Your task to perform on an android device: Find coffee shops on Maps Image 0: 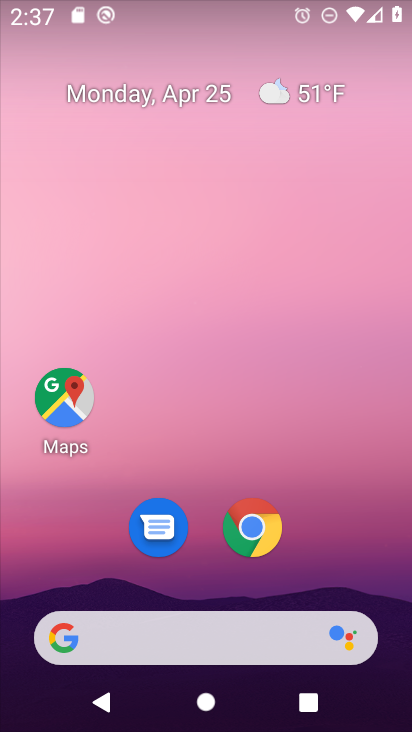
Step 0: drag from (294, 432) to (212, 36)
Your task to perform on an android device: Find coffee shops on Maps Image 1: 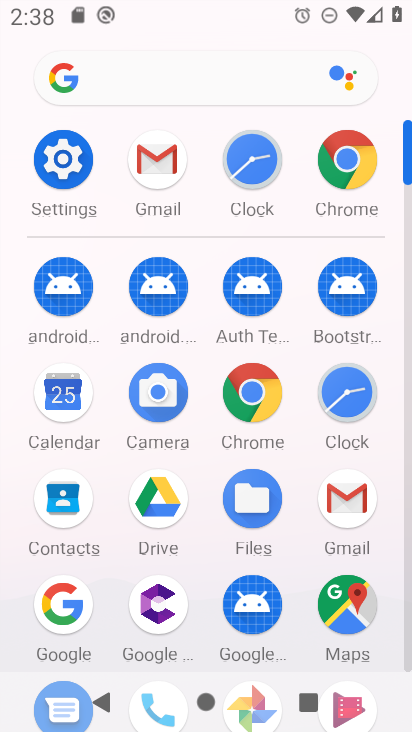
Step 1: drag from (20, 464) to (5, 146)
Your task to perform on an android device: Find coffee shops on Maps Image 2: 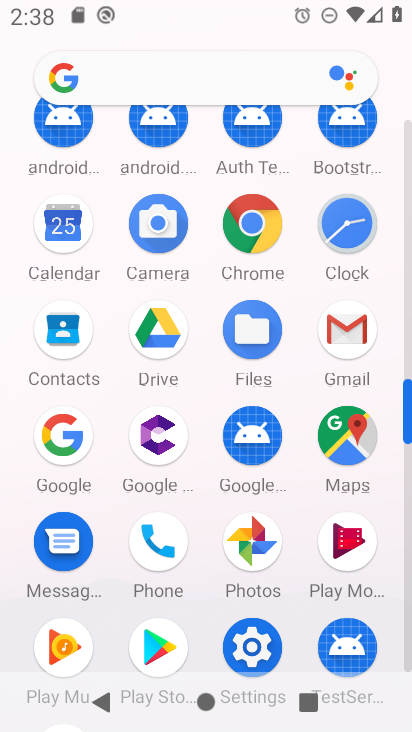
Step 2: click (346, 436)
Your task to perform on an android device: Find coffee shops on Maps Image 3: 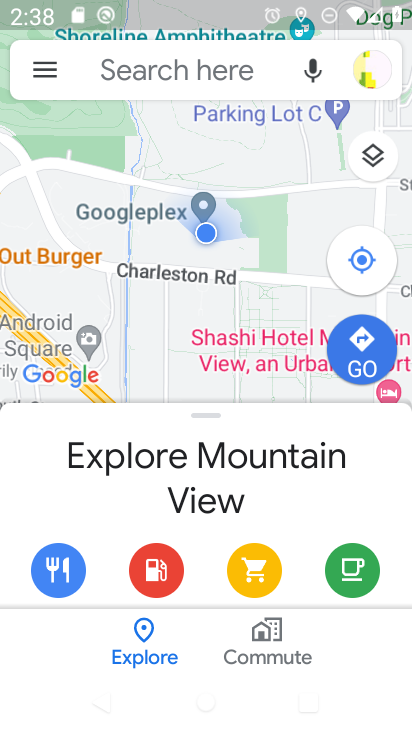
Step 3: click (261, 70)
Your task to perform on an android device: Find coffee shops on Maps Image 4: 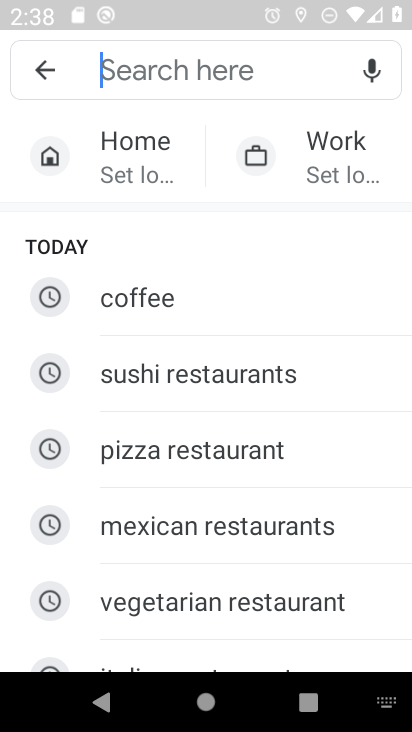
Step 4: type " coffee shops"
Your task to perform on an android device: Find coffee shops on Maps Image 5: 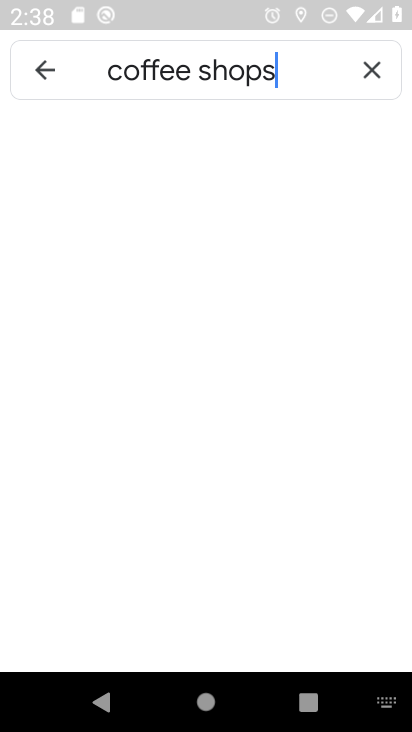
Step 5: type ""
Your task to perform on an android device: Find coffee shops on Maps Image 6: 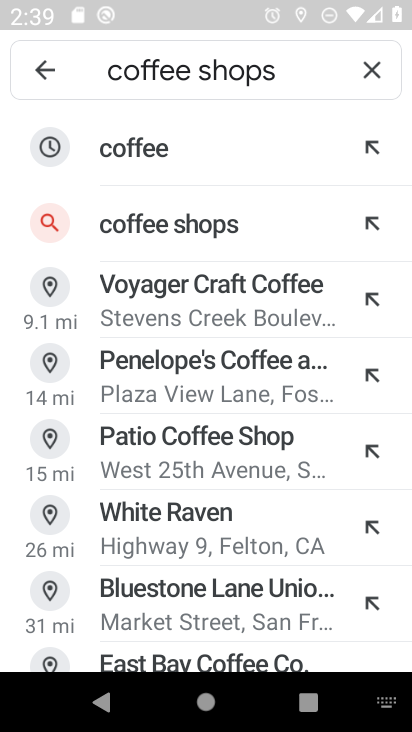
Step 6: click (207, 217)
Your task to perform on an android device: Find coffee shops on Maps Image 7: 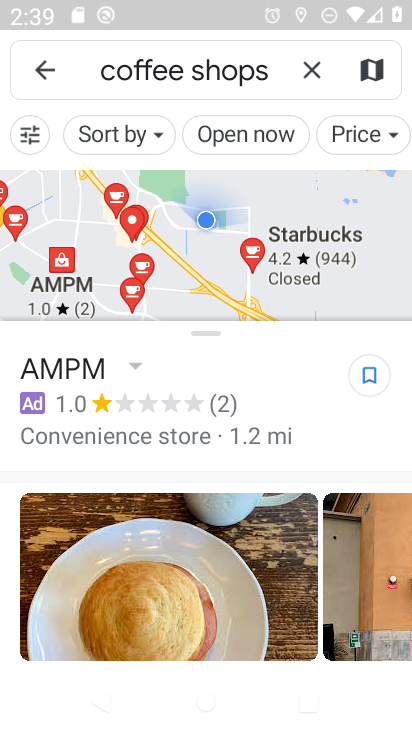
Step 7: task complete